Your task to perform on an android device: Open wifi settings Image 0: 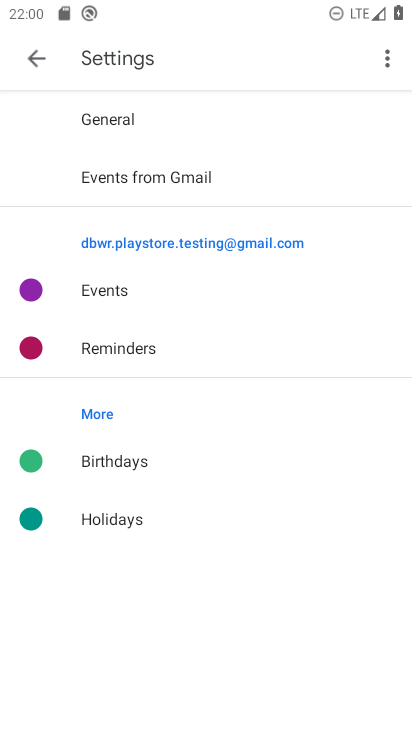
Step 0: press home button
Your task to perform on an android device: Open wifi settings Image 1: 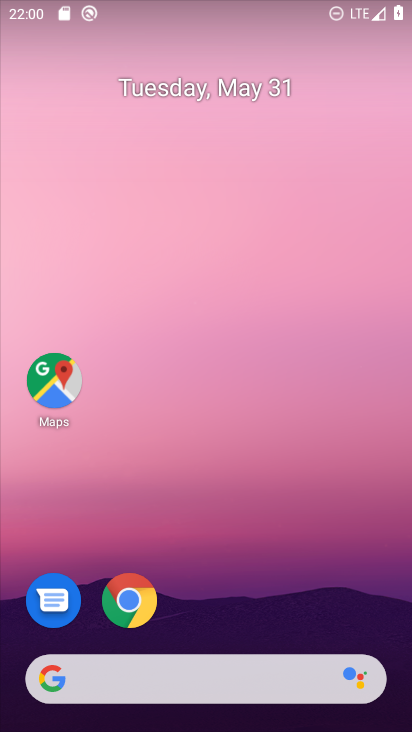
Step 1: drag from (106, 7) to (169, 483)
Your task to perform on an android device: Open wifi settings Image 2: 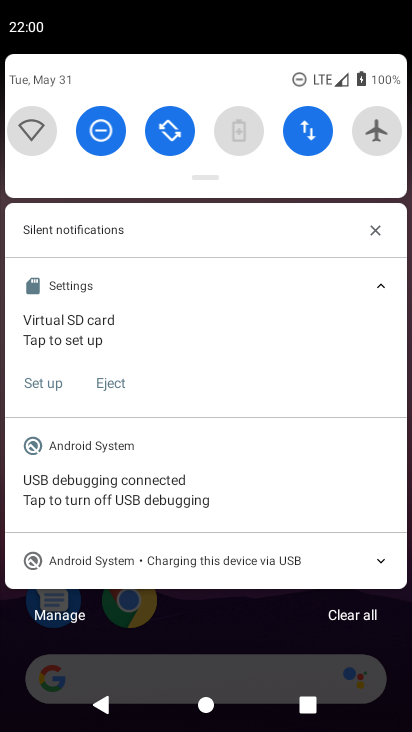
Step 2: click (30, 134)
Your task to perform on an android device: Open wifi settings Image 3: 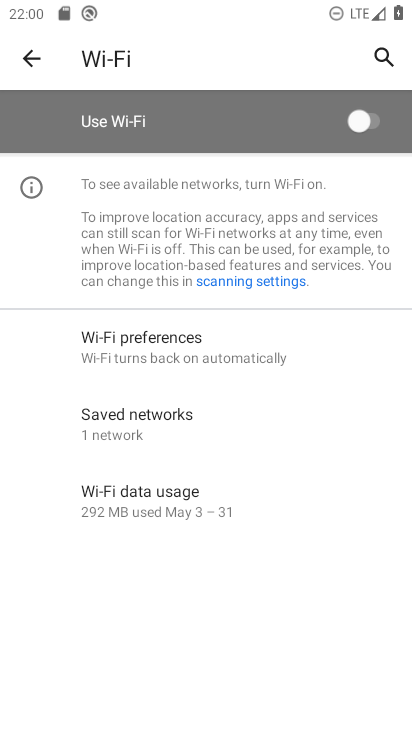
Step 3: task complete